Your task to perform on an android device: Show the shopping cart on newegg. Add "razer blade" to the cart on newegg, then select checkout. Image 0: 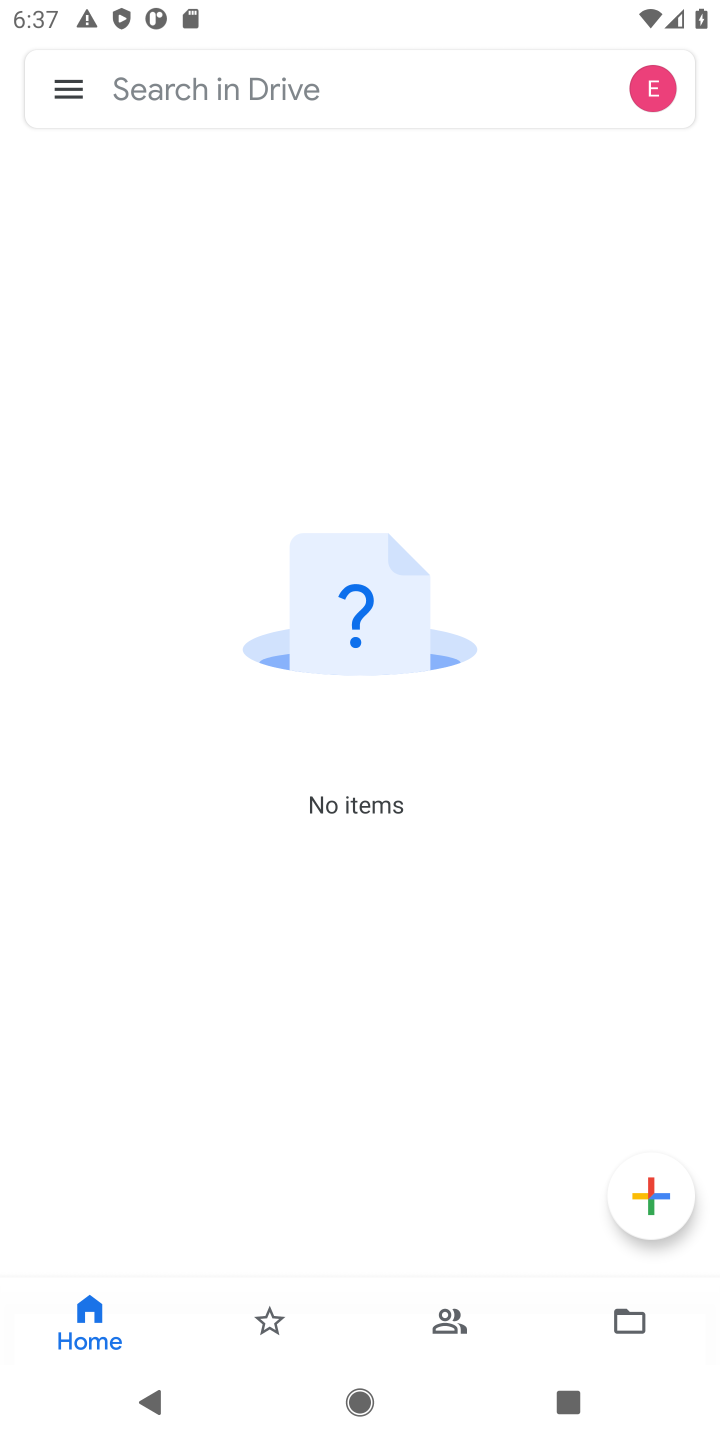
Step 0: press home button
Your task to perform on an android device: Show the shopping cart on newegg. Add "razer blade" to the cart on newegg, then select checkout. Image 1: 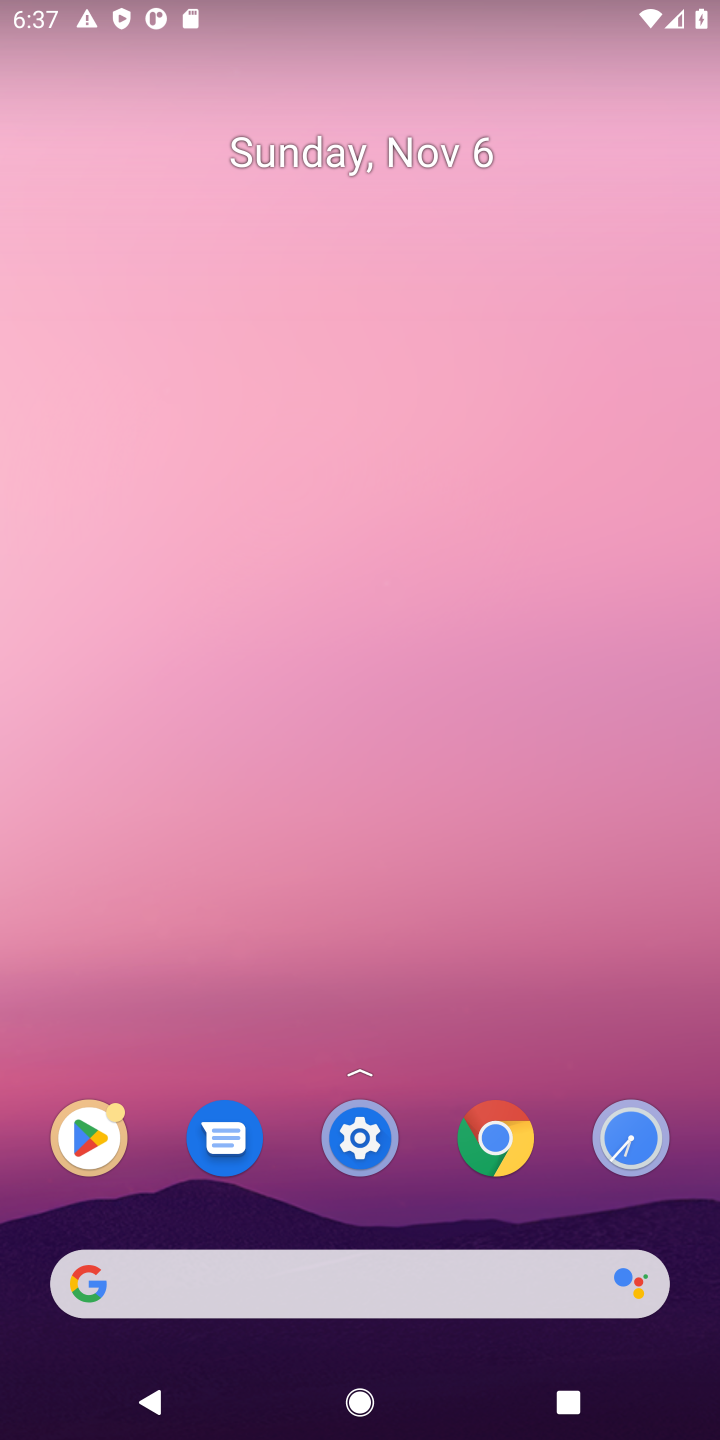
Step 1: click (494, 1141)
Your task to perform on an android device: Show the shopping cart on newegg. Add "razer blade" to the cart on newegg, then select checkout. Image 2: 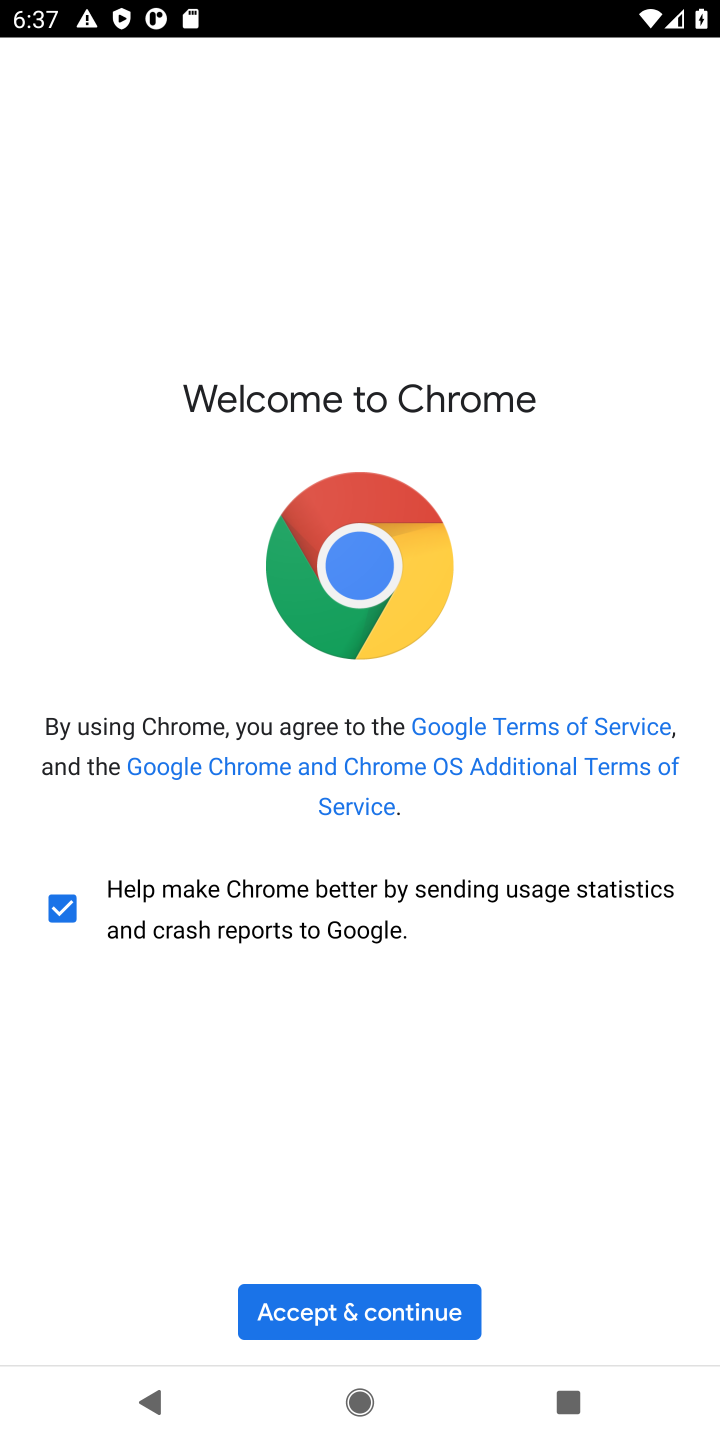
Step 2: click (319, 1290)
Your task to perform on an android device: Show the shopping cart on newegg. Add "razer blade" to the cart on newegg, then select checkout. Image 3: 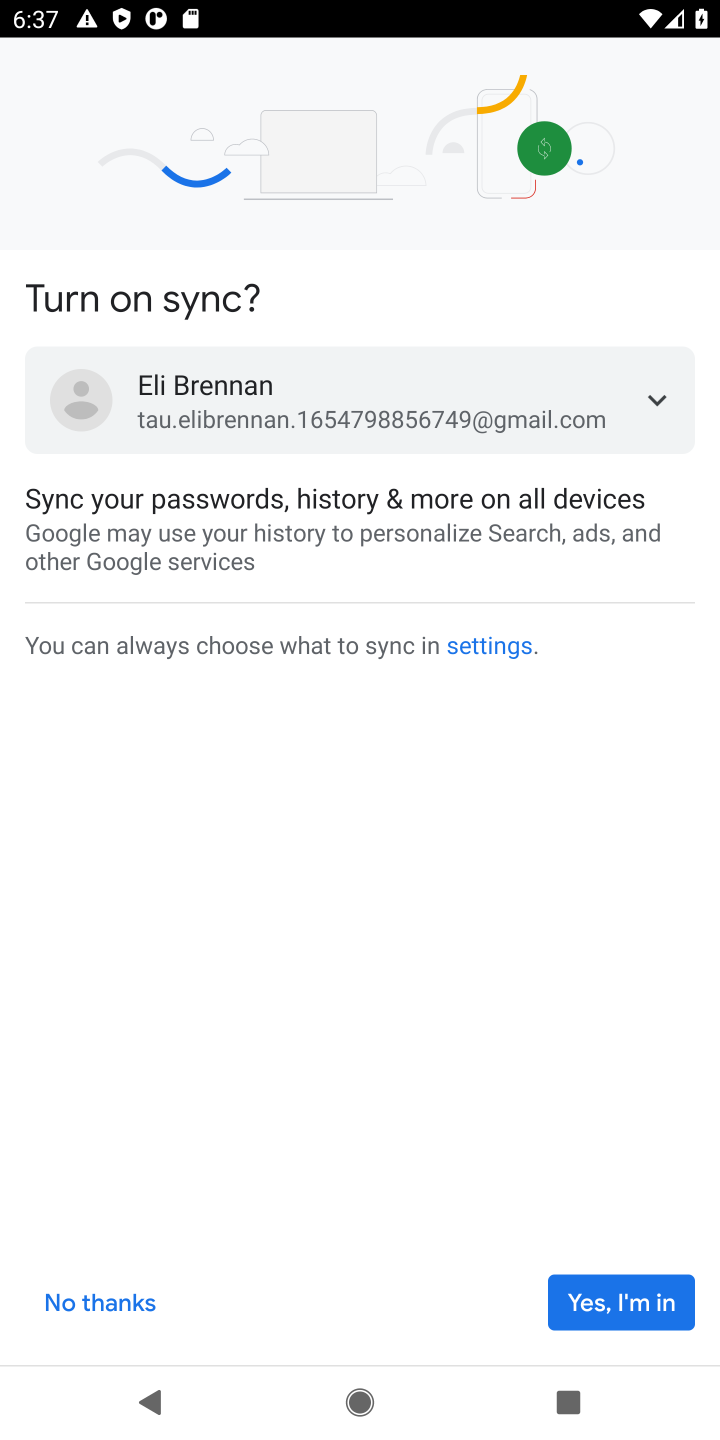
Step 3: click (551, 1308)
Your task to perform on an android device: Show the shopping cart on newegg. Add "razer blade" to the cart on newegg, then select checkout. Image 4: 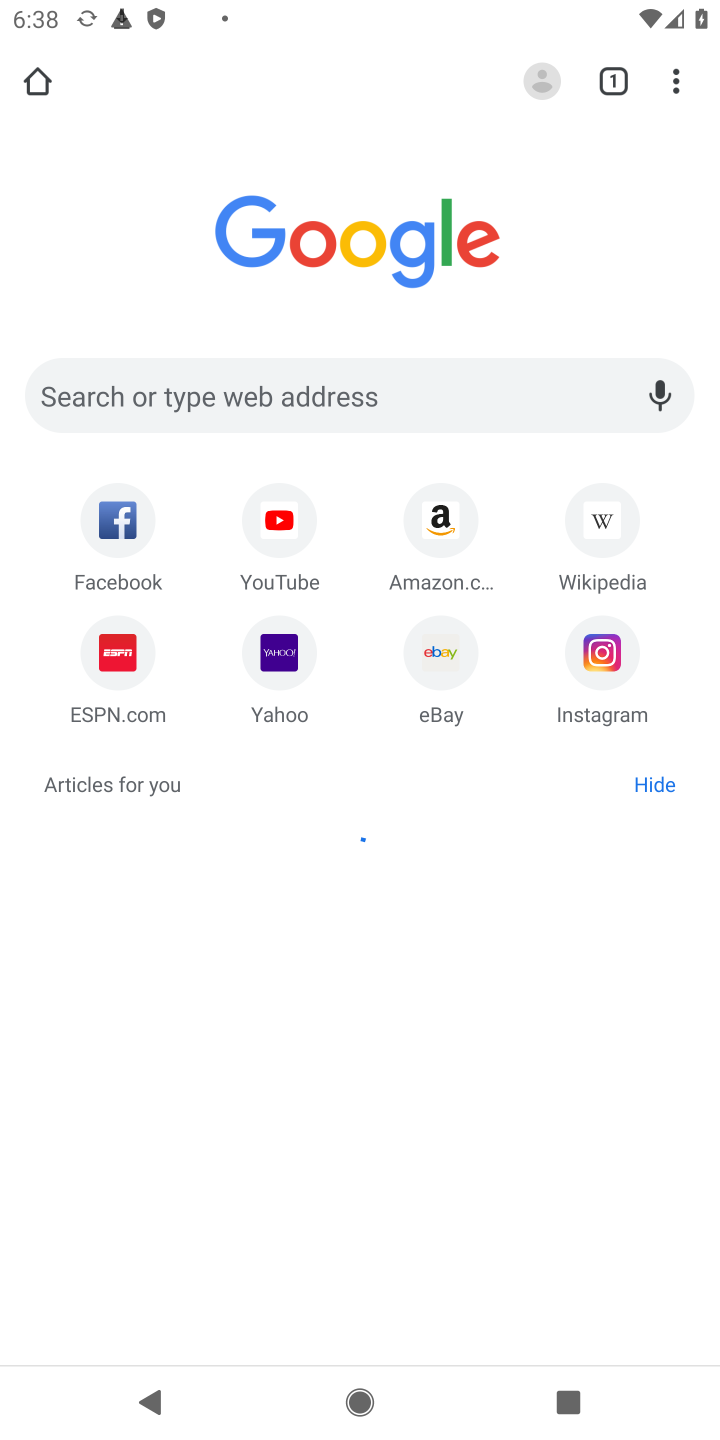
Step 4: click (218, 408)
Your task to perform on an android device: Show the shopping cart on newegg. Add "razer blade" to the cart on newegg, then select checkout. Image 5: 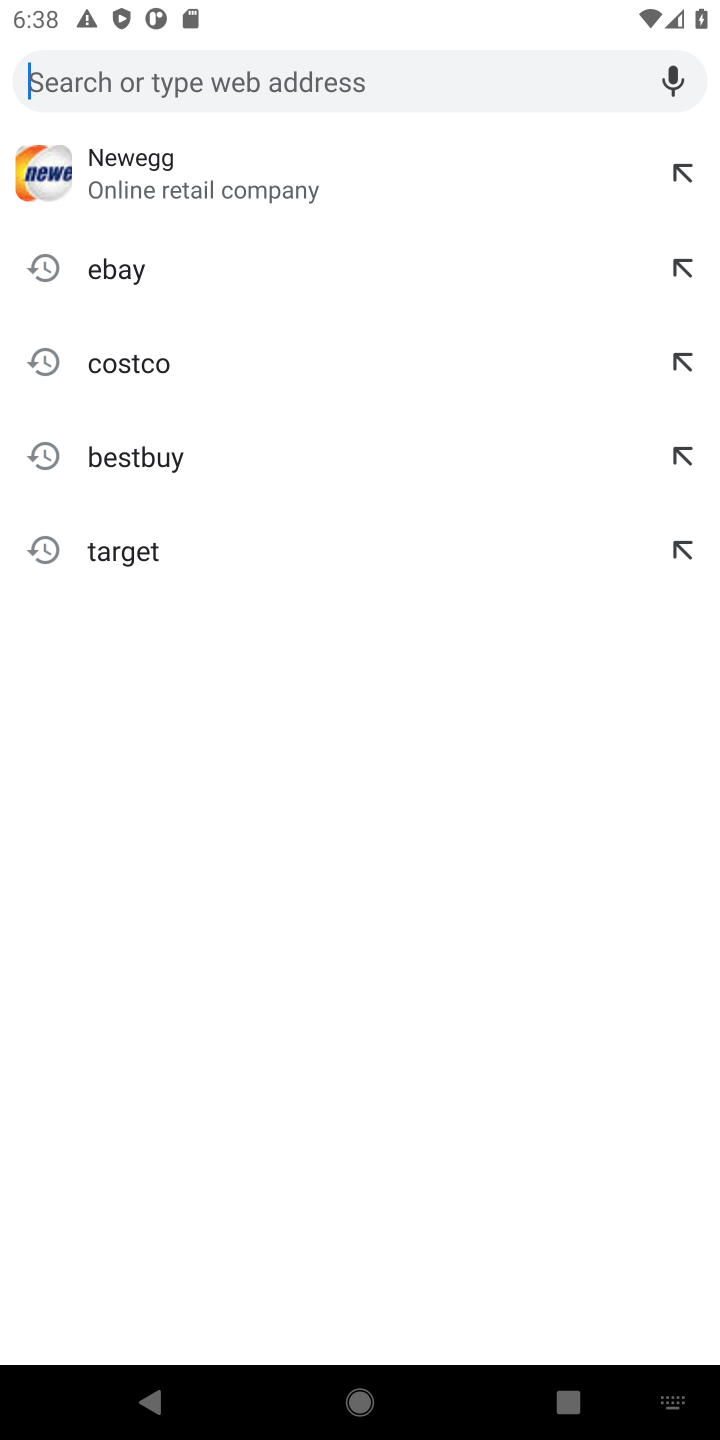
Step 5: click (148, 100)
Your task to perform on an android device: Show the shopping cart on newegg. Add "razer blade" to the cart on newegg, then select checkout. Image 6: 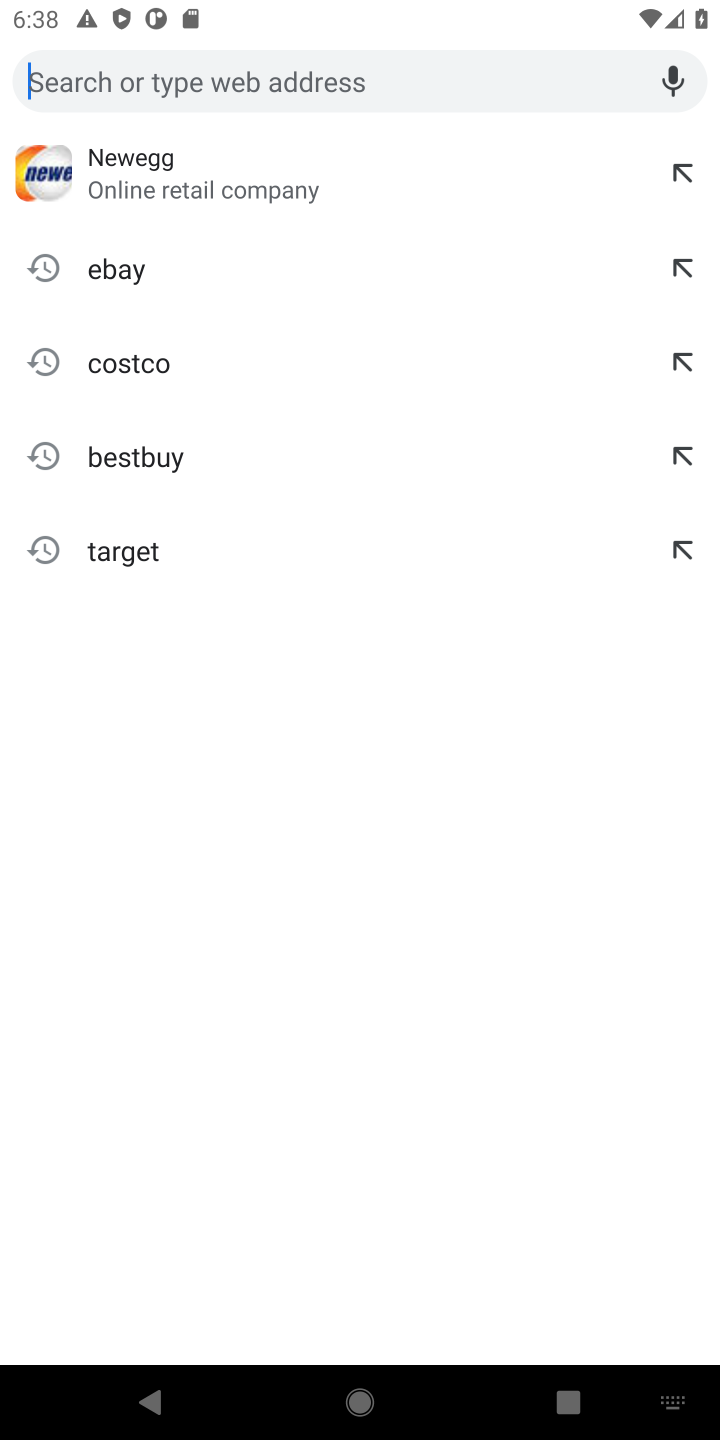
Step 6: click (217, 163)
Your task to perform on an android device: Show the shopping cart on newegg. Add "razer blade" to the cart on newegg, then select checkout. Image 7: 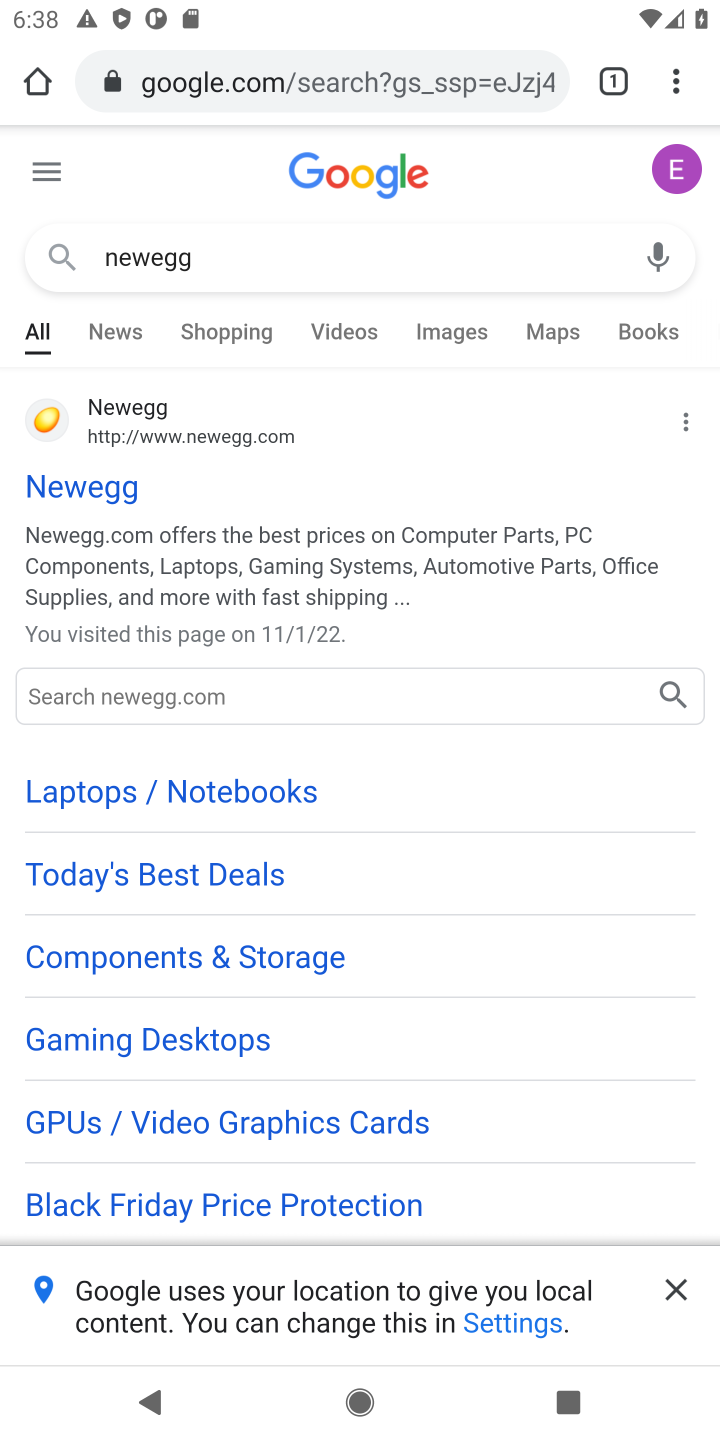
Step 7: click (94, 507)
Your task to perform on an android device: Show the shopping cart on newegg. Add "razer blade" to the cart on newegg, then select checkout. Image 8: 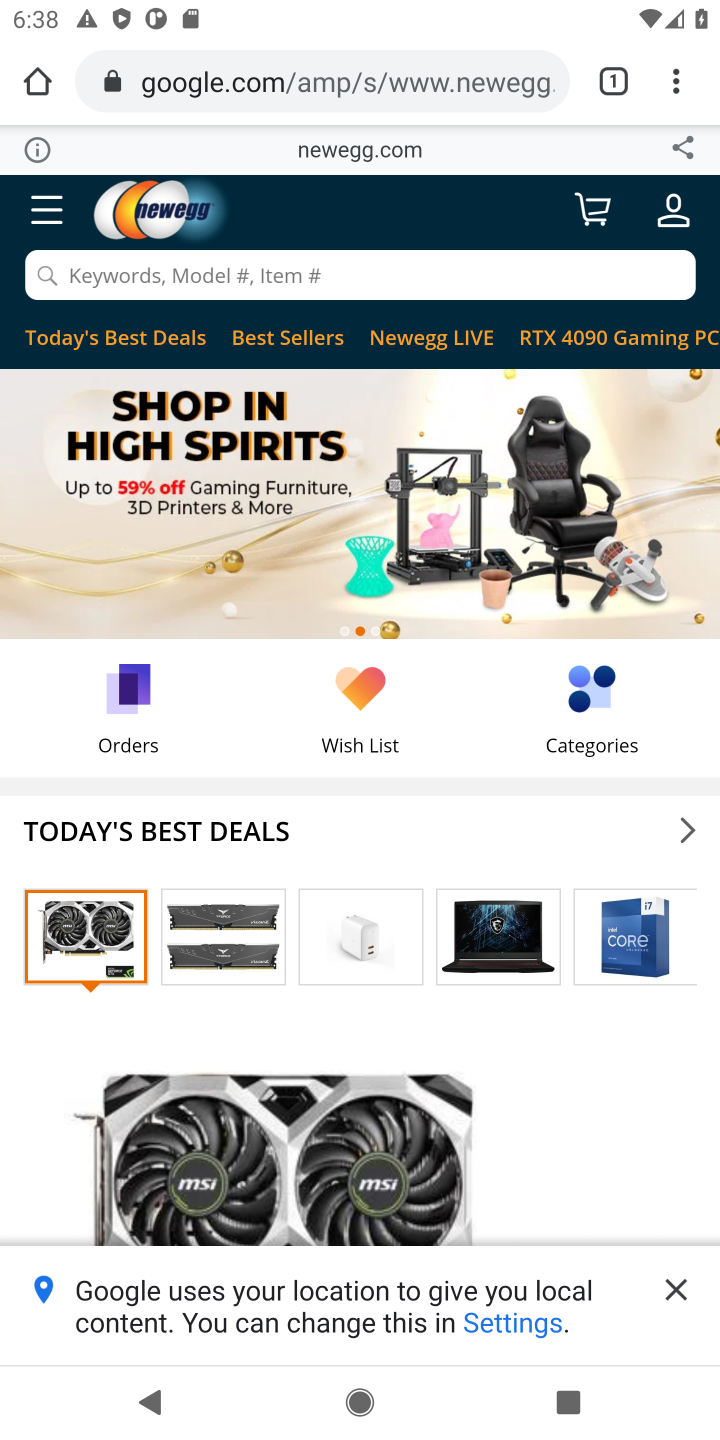
Step 8: click (222, 277)
Your task to perform on an android device: Show the shopping cart on newegg. Add "razer blade" to the cart on newegg, then select checkout. Image 9: 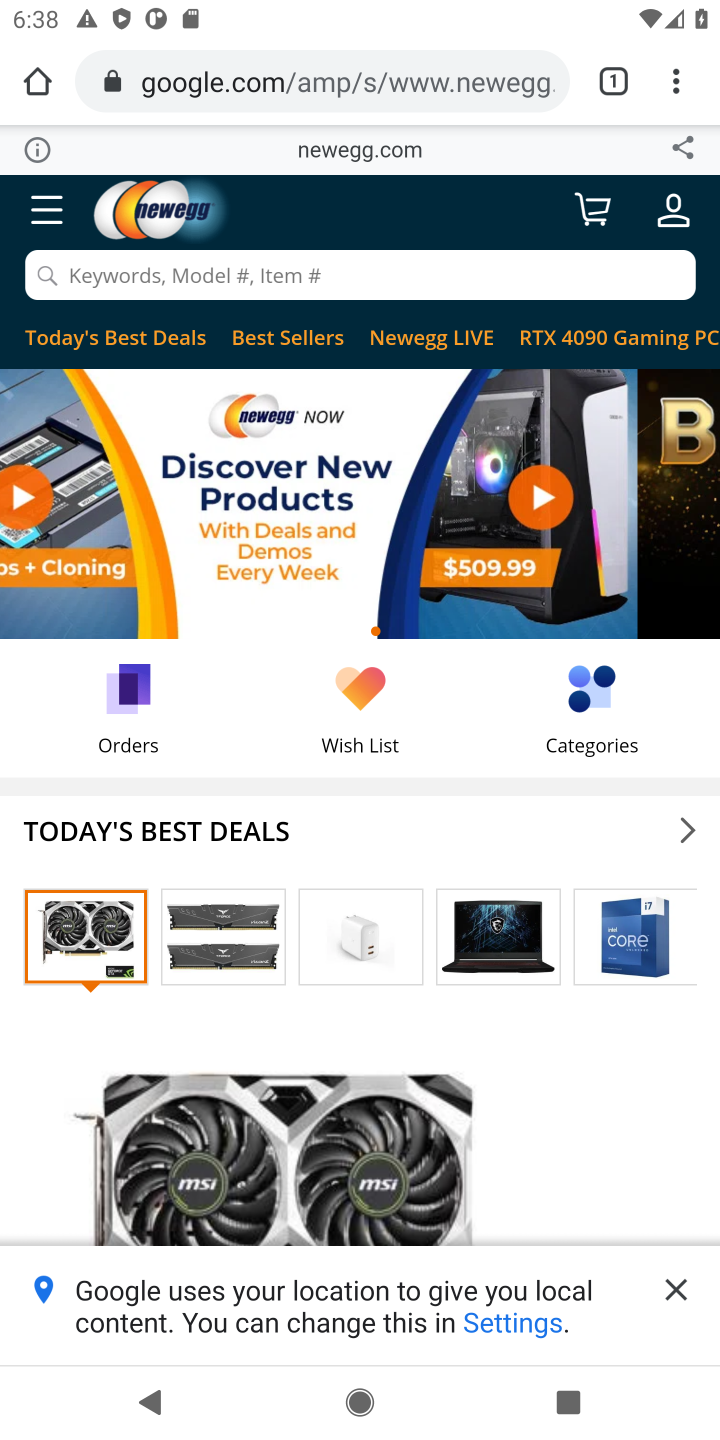
Step 9: click (208, 285)
Your task to perform on an android device: Show the shopping cart on newegg. Add "razer blade" to the cart on newegg, then select checkout. Image 10: 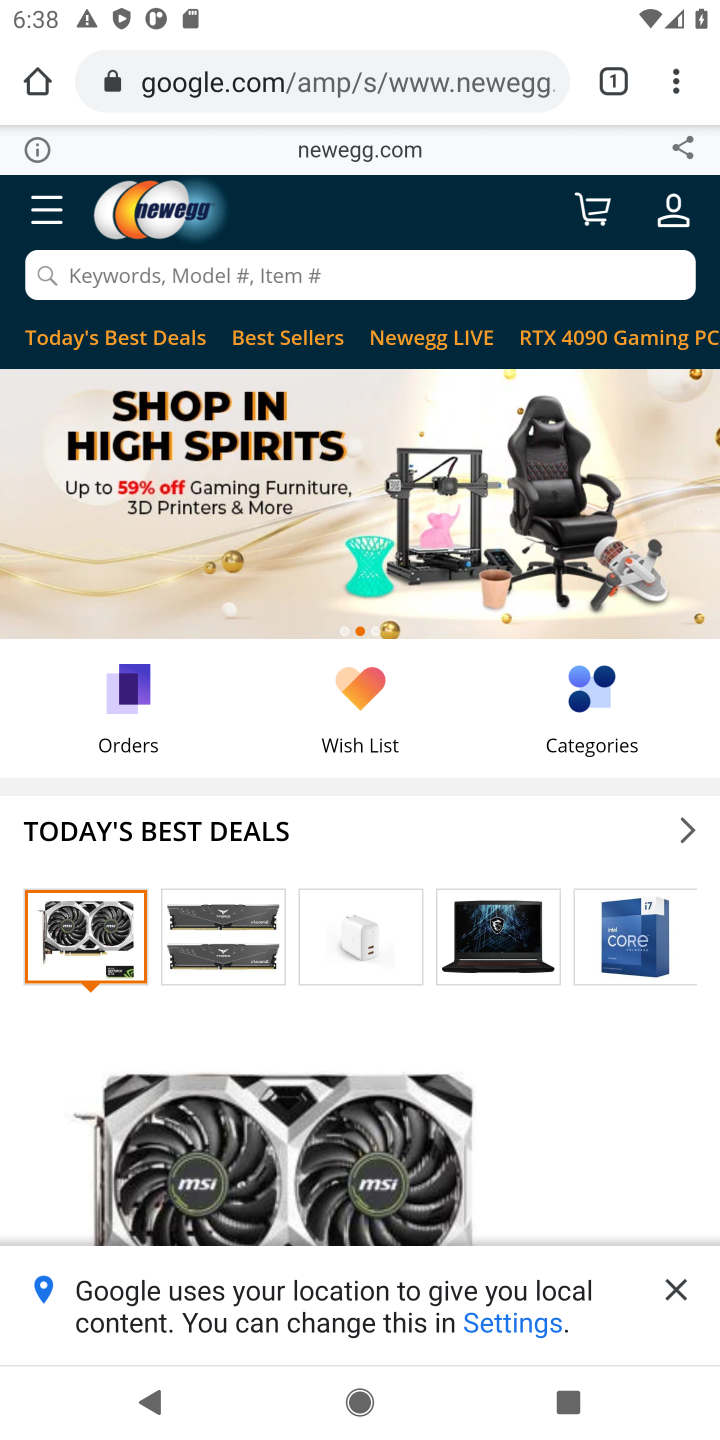
Step 10: click (192, 286)
Your task to perform on an android device: Show the shopping cart on newegg. Add "razer blade" to the cart on newegg, then select checkout. Image 11: 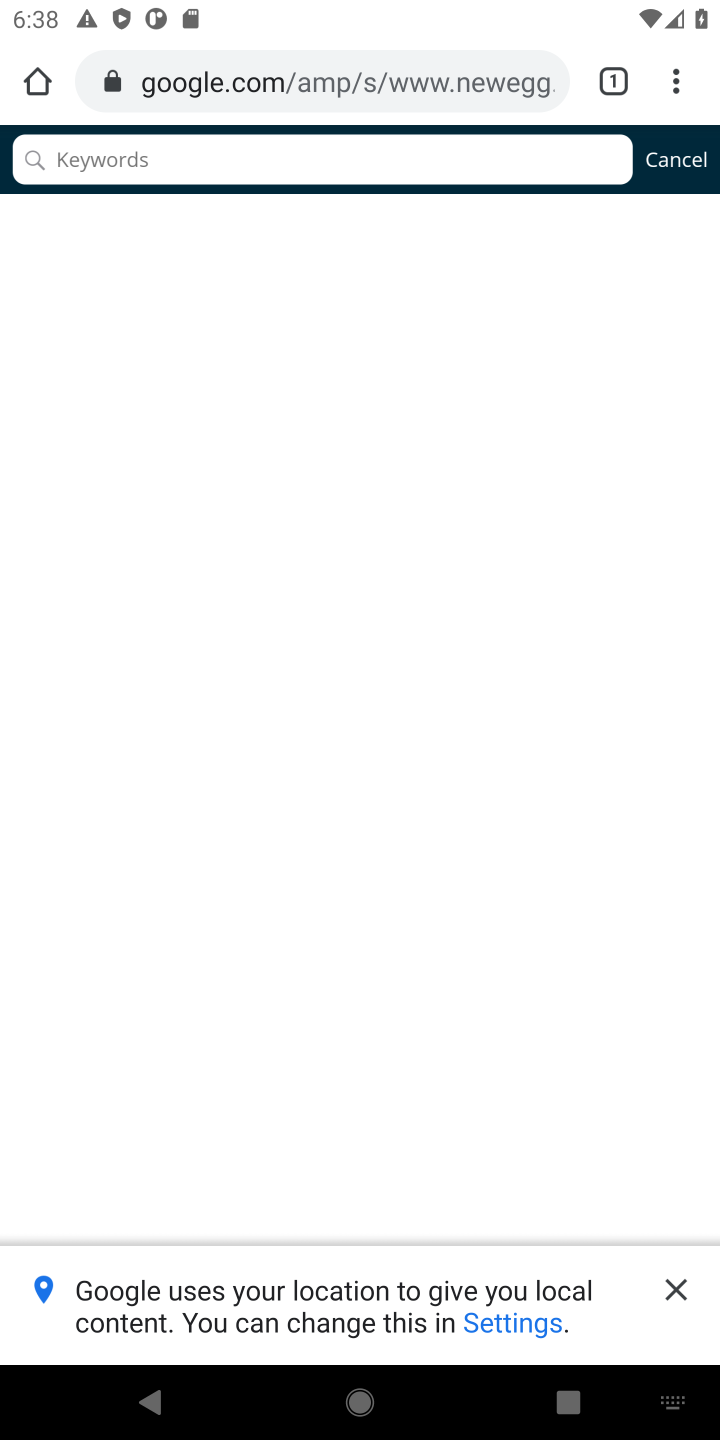
Step 11: type "razer blade"
Your task to perform on an android device: Show the shopping cart on newegg. Add "razer blade" to the cart on newegg, then select checkout. Image 12: 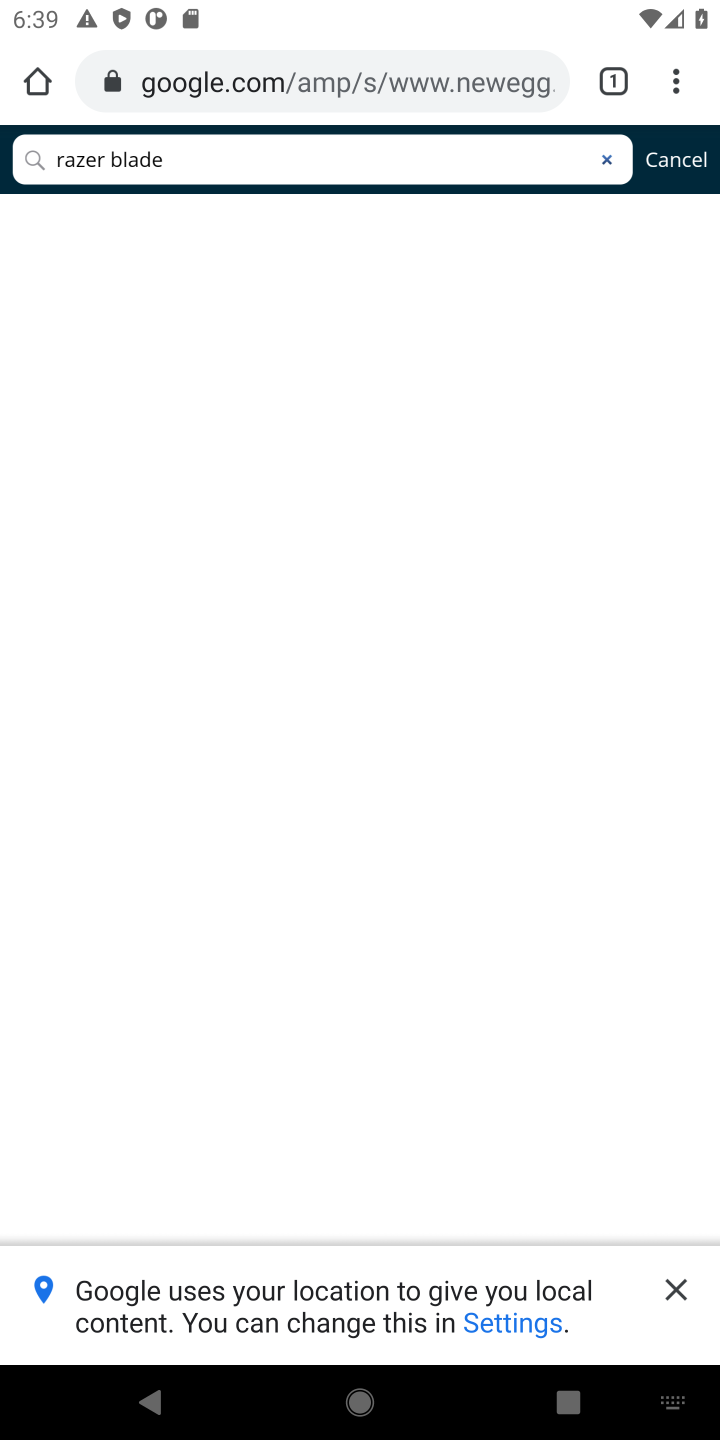
Step 12: task complete